Your task to perform on an android device: turn on the 24-hour format for clock Image 0: 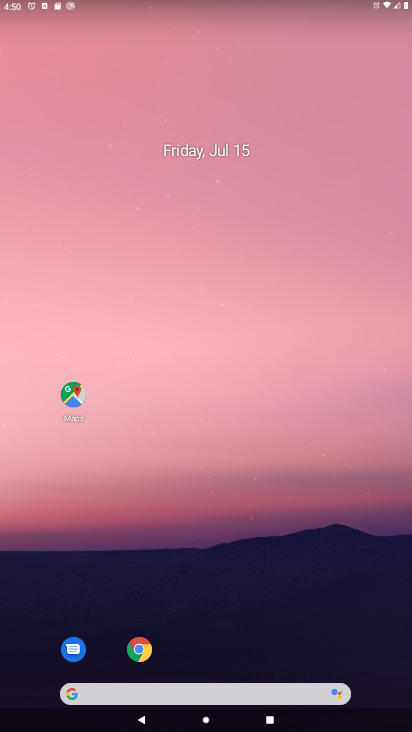
Step 0: drag from (373, 647) to (354, 84)
Your task to perform on an android device: turn on the 24-hour format for clock Image 1: 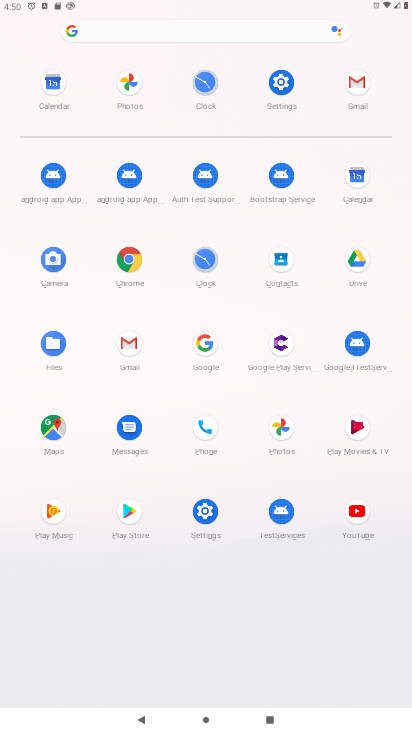
Step 1: click (205, 258)
Your task to perform on an android device: turn on the 24-hour format for clock Image 2: 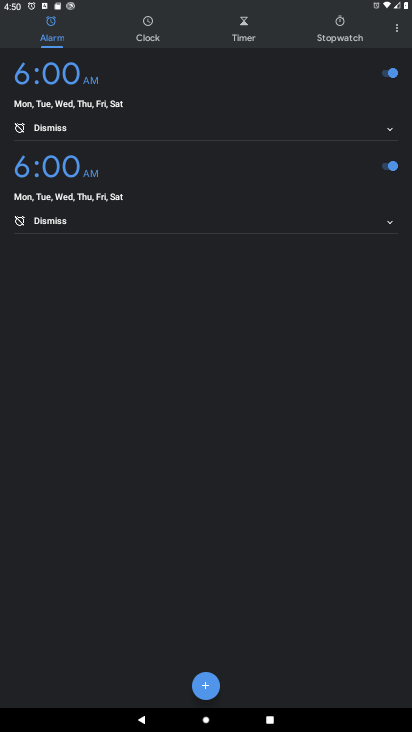
Step 2: click (400, 35)
Your task to perform on an android device: turn on the 24-hour format for clock Image 3: 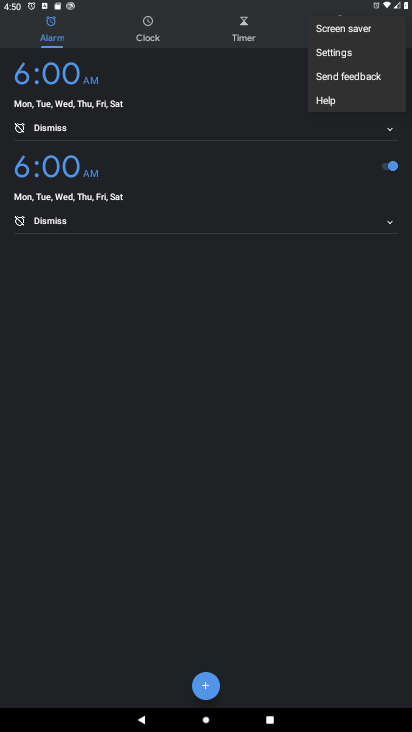
Step 3: click (336, 54)
Your task to perform on an android device: turn on the 24-hour format for clock Image 4: 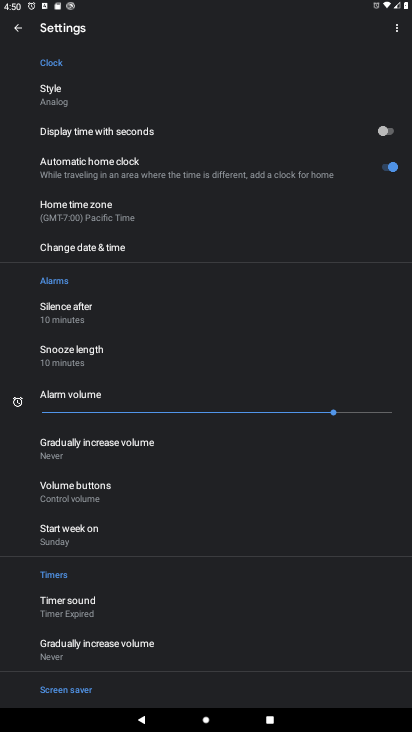
Step 4: click (95, 244)
Your task to perform on an android device: turn on the 24-hour format for clock Image 5: 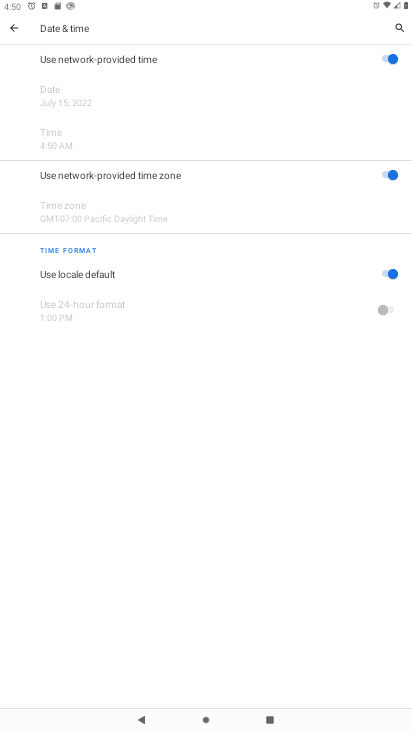
Step 5: click (385, 271)
Your task to perform on an android device: turn on the 24-hour format for clock Image 6: 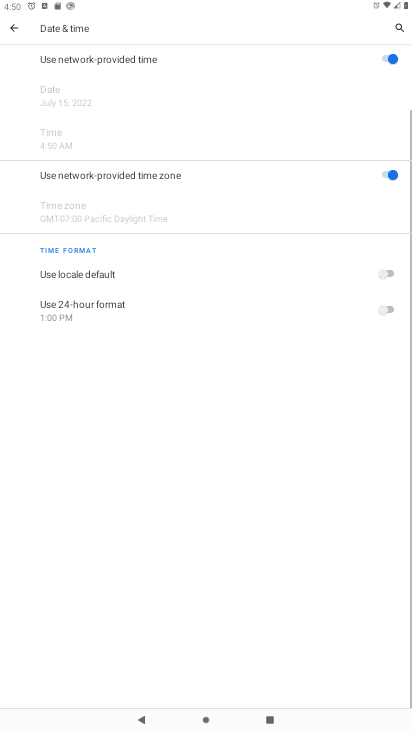
Step 6: click (389, 308)
Your task to perform on an android device: turn on the 24-hour format for clock Image 7: 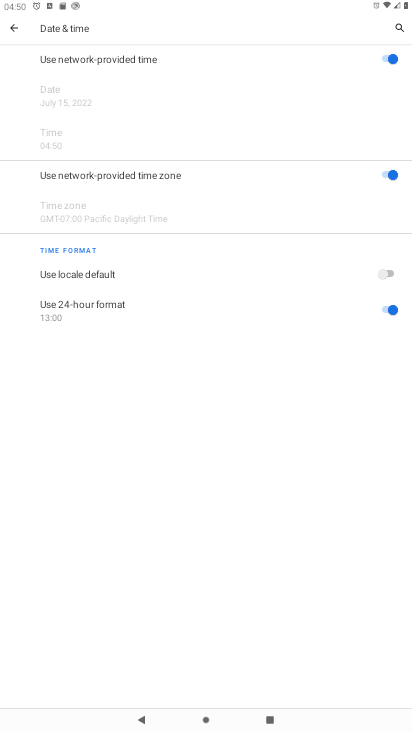
Step 7: task complete